Your task to perform on an android device: allow cookies in the chrome app Image 0: 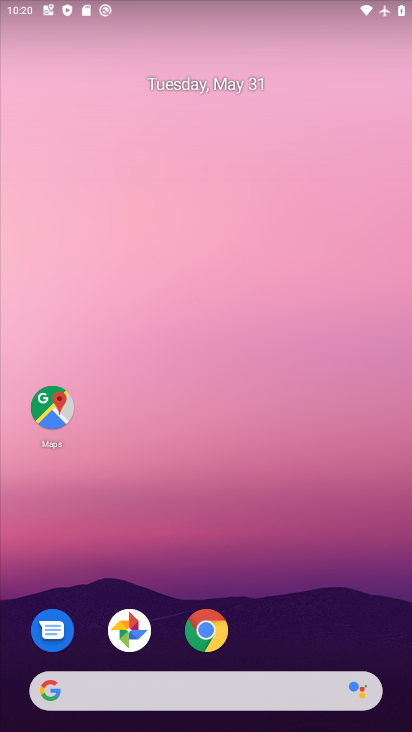
Step 0: drag from (326, 612) to (280, 118)
Your task to perform on an android device: allow cookies in the chrome app Image 1: 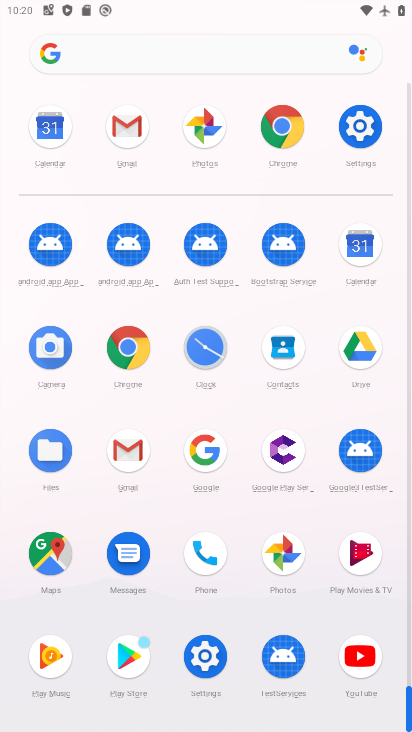
Step 1: click (286, 119)
Your task to perform on an android device: allow cookies in the chrome app Image 2: 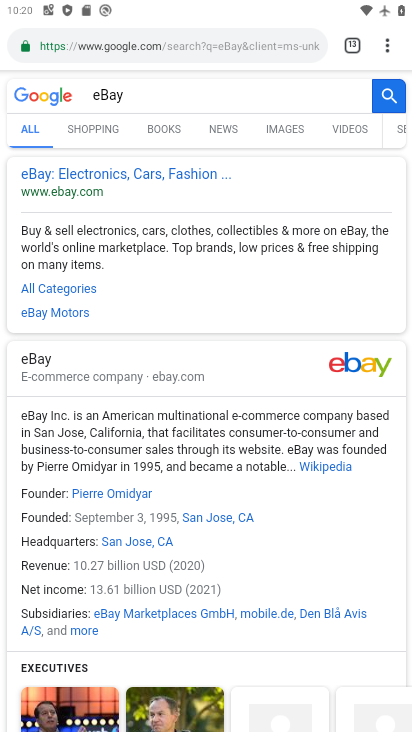
Step 2: click (386, 42)
Your task to perform on an android device: allow cookies in the chrome app Image 3: 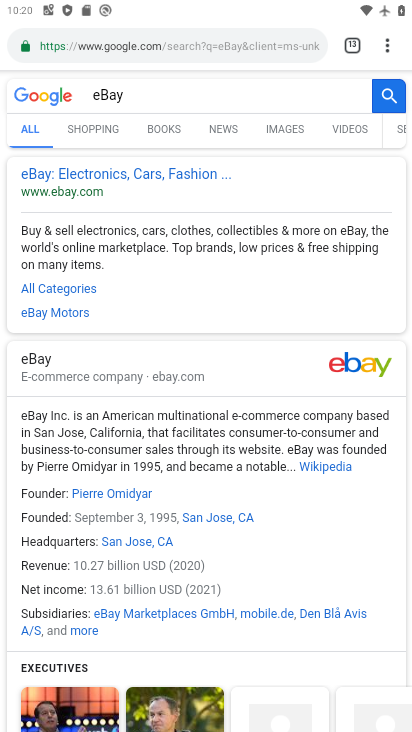
Step 3: click (392, 36)
Your task to perform on an android device: allow cookies in the chrome app Image 4: 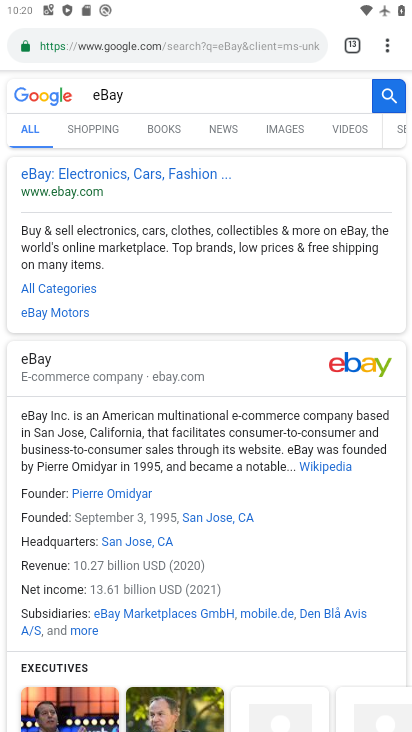
Step 4: click (387, 44)
Your task to perform on an android device: allow cookies in the chrome app Image 5: 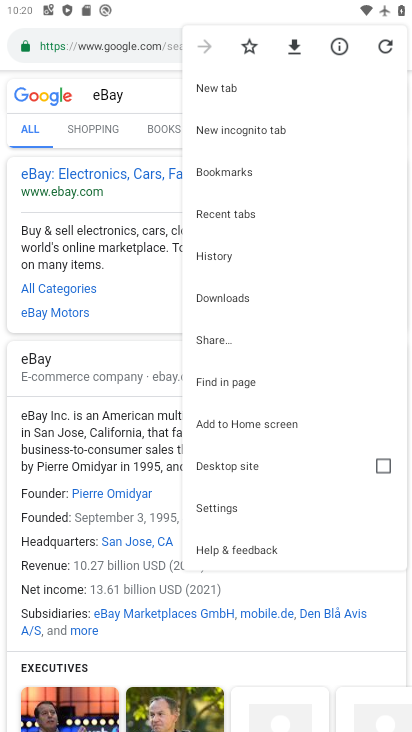
Step 5: drag from (261, 502) to (266, 356)
Your task to perform on an android device: allow cookies in the chrome app Image 6: 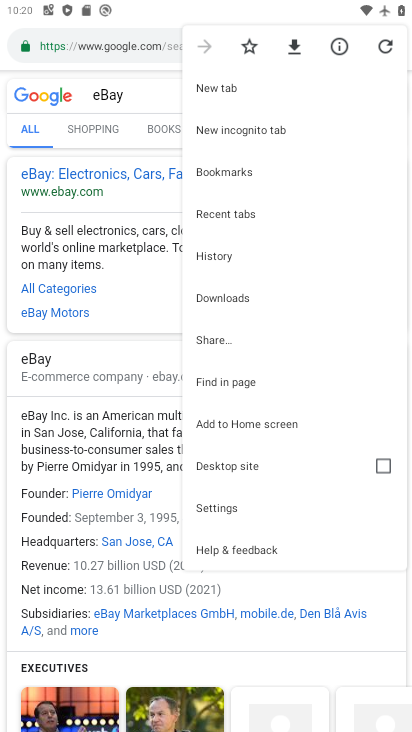
Step 6: click (250, 503)
Your task to perform on an android device: allow cookies in the chrome app Image 7: 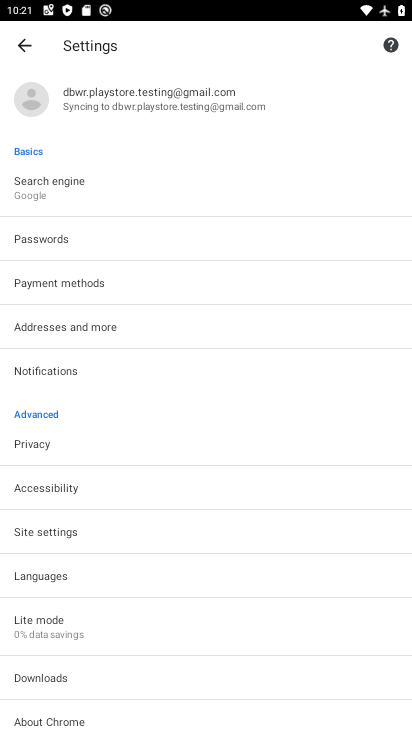
Step 7: click (66, 527)
Your task to perform on an android device: allow cookies in the chrome app Image 8: 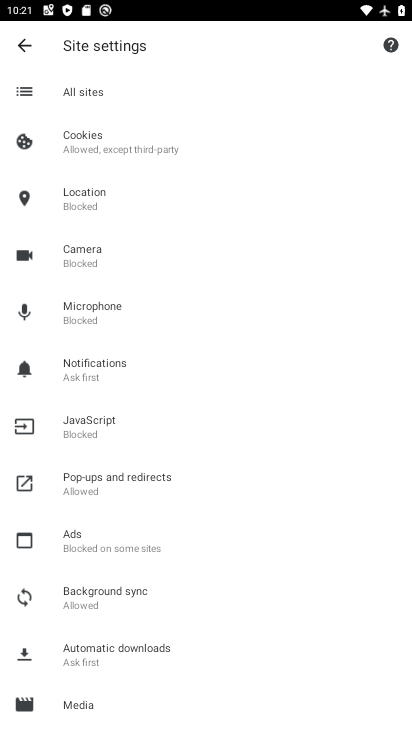
Step 8: click (107, 142)
Your task to perform on an android device: allow cookies in the chrome app Image 9: 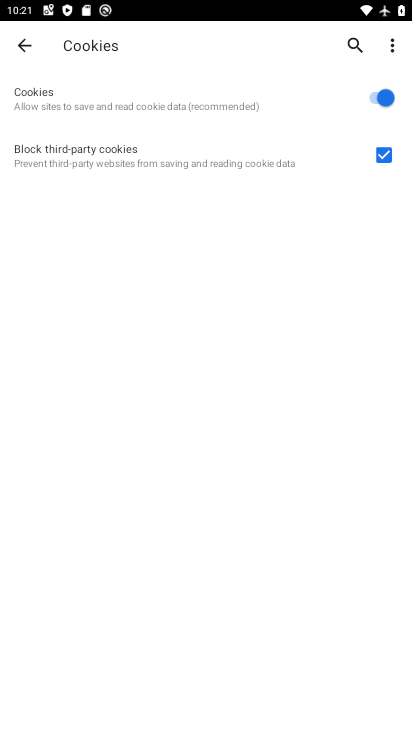
Step 9: task complete